Your task to perform on an android device: What's on my calendar today? Image 0: 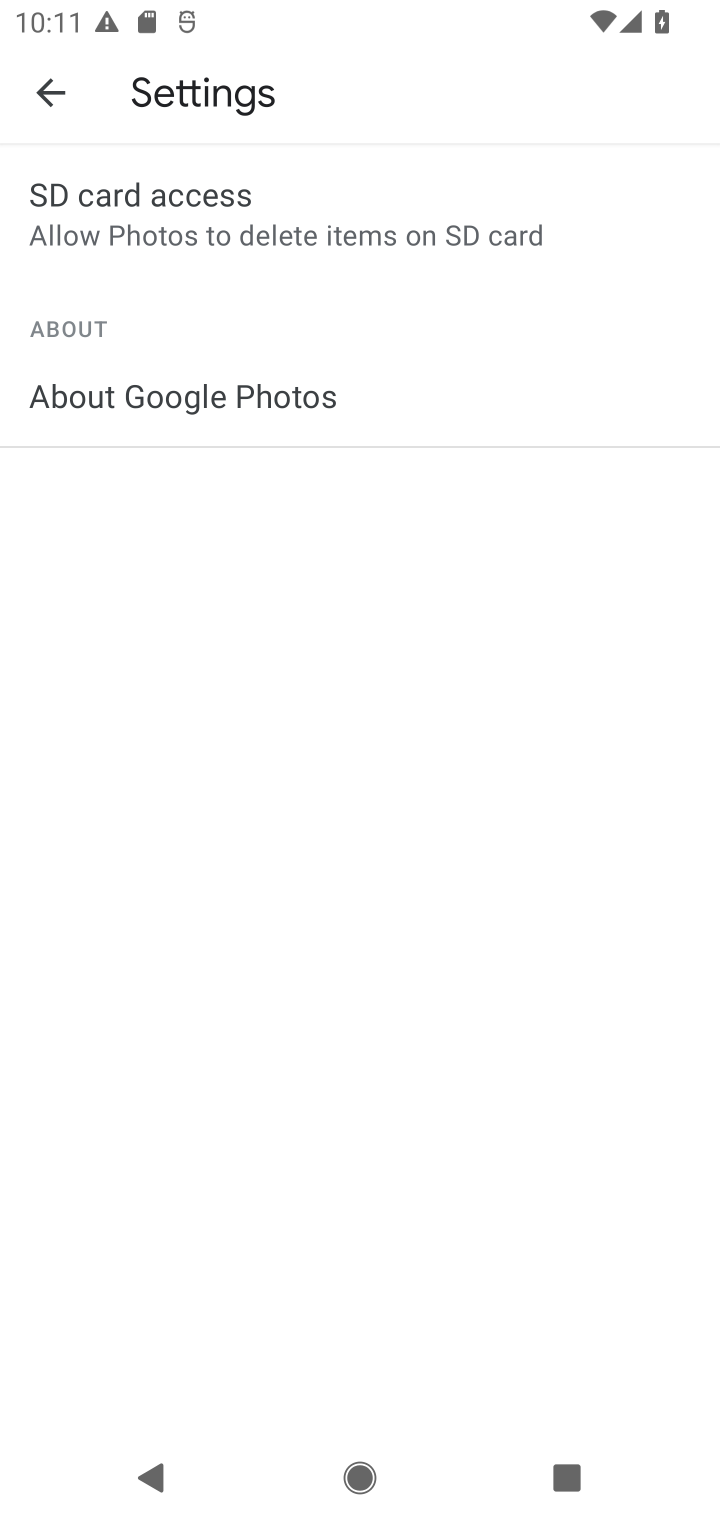
Step 0: press home button
Your task to perform on an android device: What's on my calendar today? Image 1: 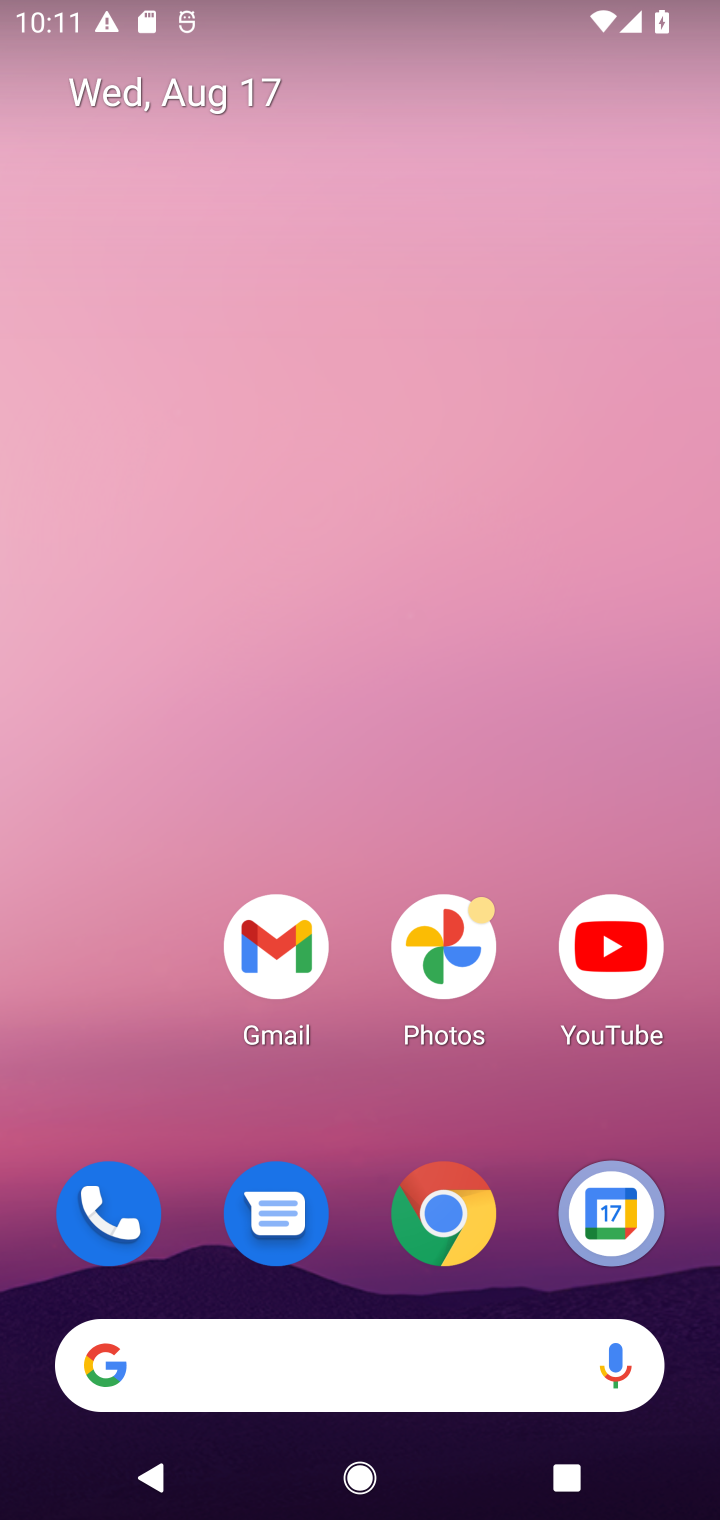
Step 1: drag from (673, 1320) to (280, 12)
Your task to perform on an android device: What's on my calendar today? Image 2: 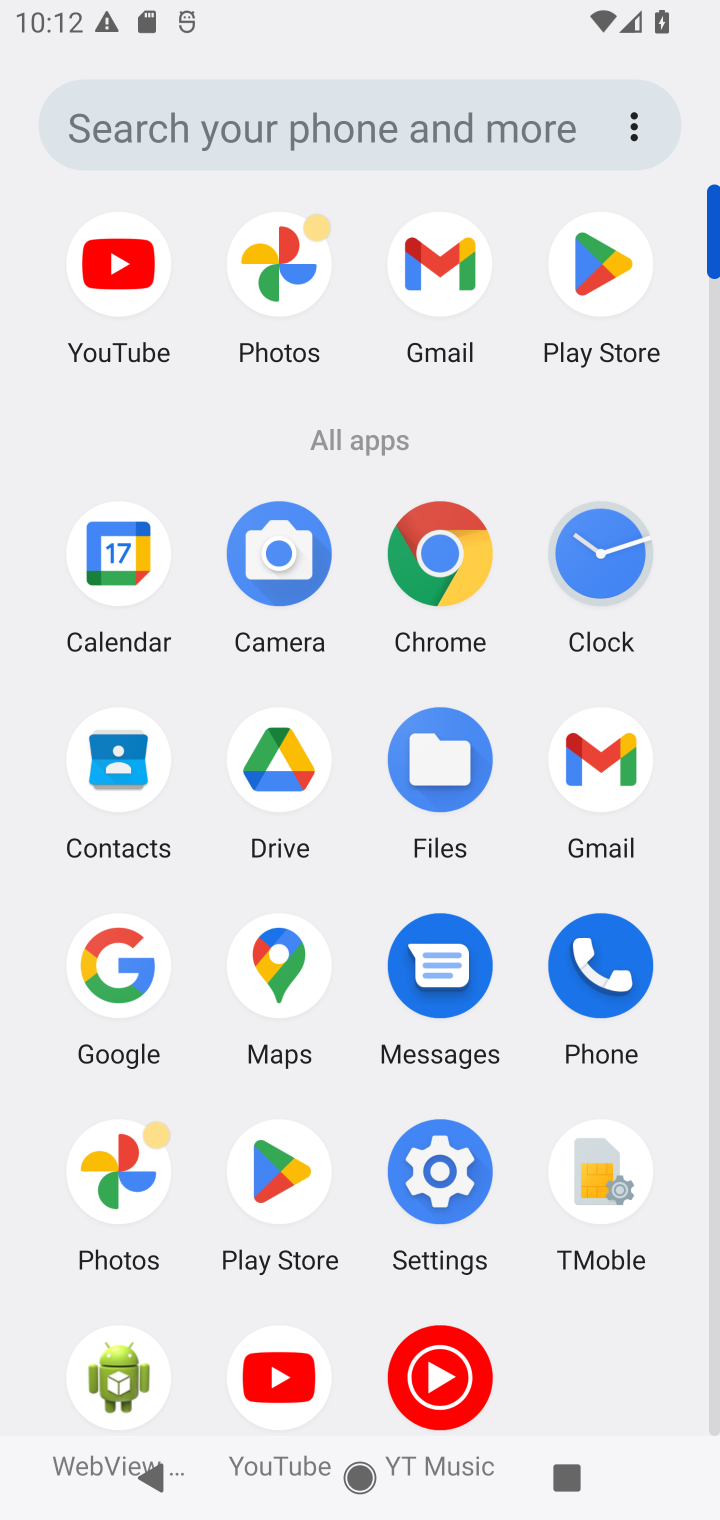
Step 2: click (132, 561)
Your task to perform on an android device: What's on my calendar today? Image 3: 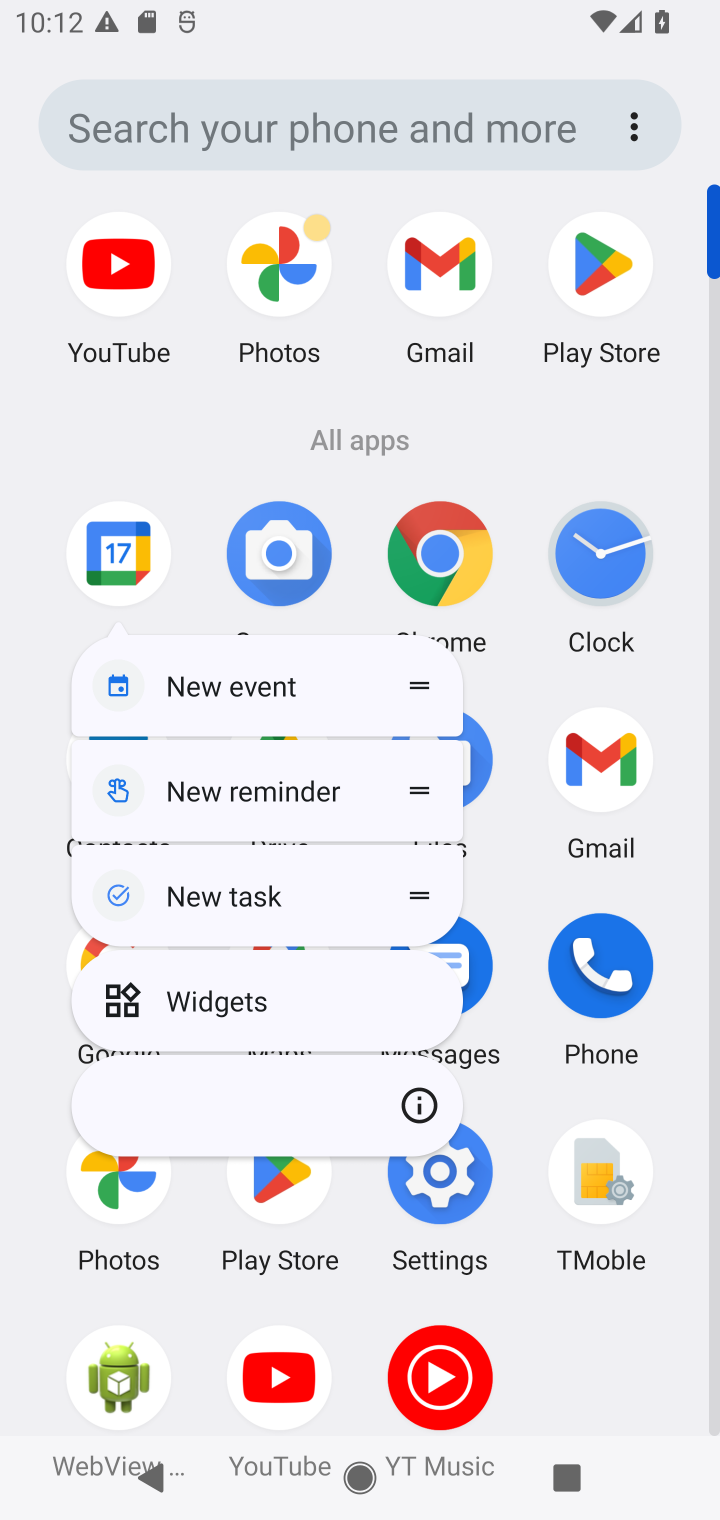
Step 3: click (132, 561)
Your task to perform on an android device: What's on my calendar today? Image 4: 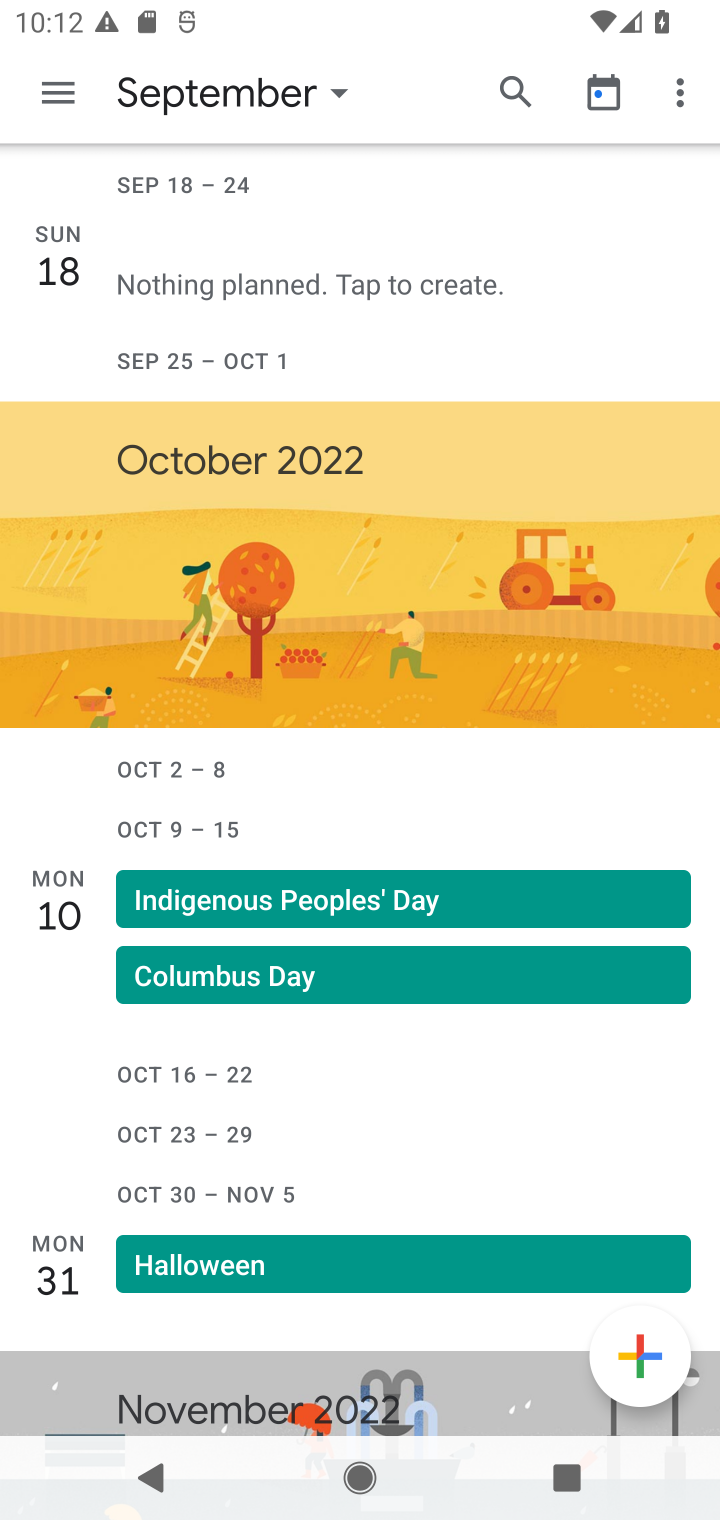
Step 4: task complete